Your task to perform on an android device: Go to calendar. Show me events next week Image 0: 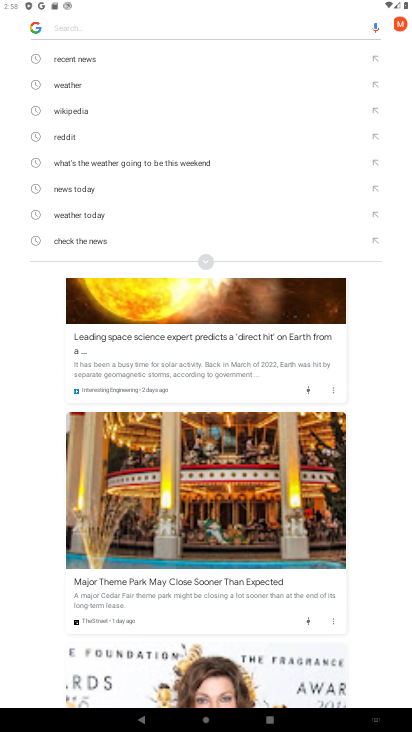
Step 0: press home button
Your task to perform on an android device: Go to calendar. Show me events next week Image 1: 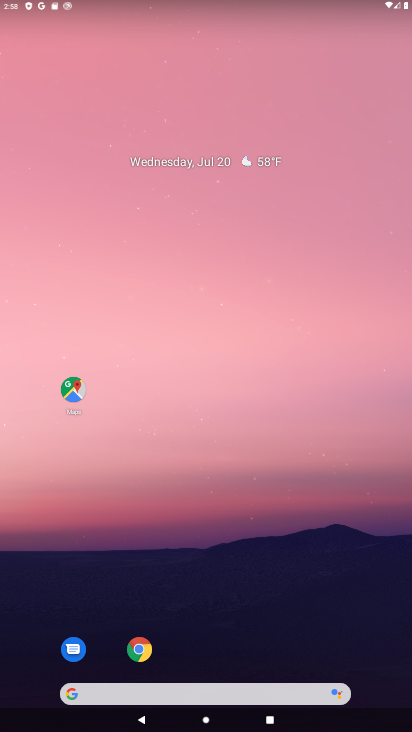
Step 1: drag from (234, 680) to (234, 230)
Your task to perform on an android device: Go to calendar. Show me events next week Image 2: 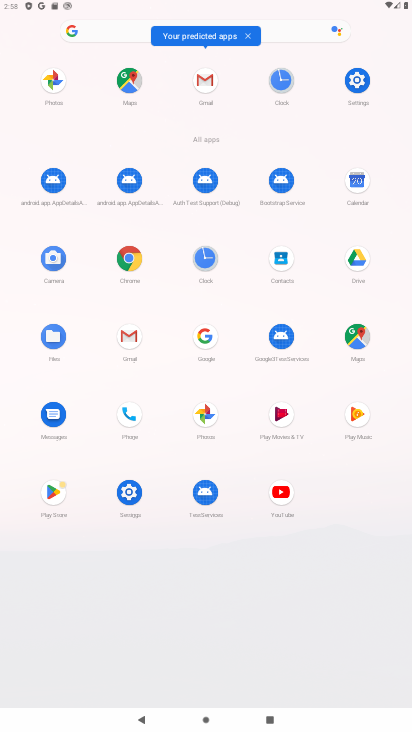
Step 2: click (356, 180)
Your task to perform on an android device: Go to calendar. Show me events next week Image 3: 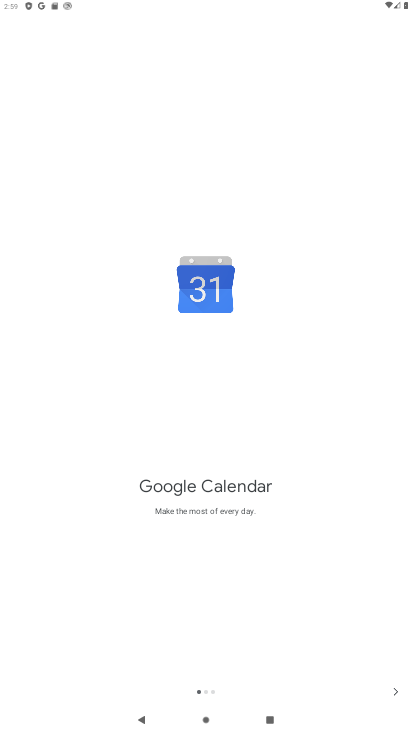
Step 3: click (398, 693)
Your task to perform on an android device: Go to calendar. Show me events next week Image 4: 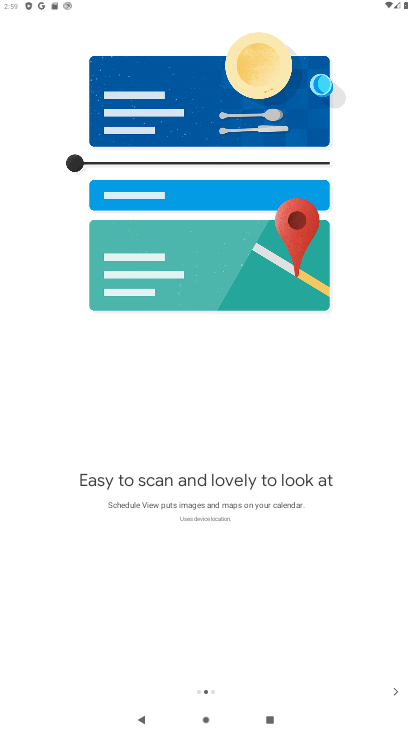
Step 4: click (396, 691)
Your task to perform on an android device: Go to calendar. Show me events next week Image 5: 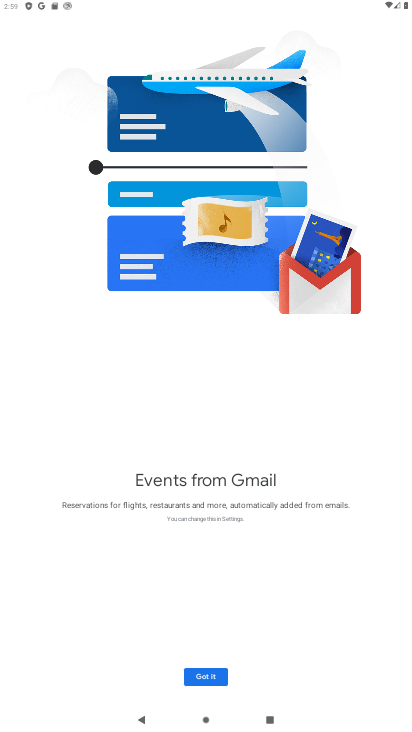
Step 5: click (210, 679)
Your task to perform on an android device: Go to calendar. Show me events next week Image 6: 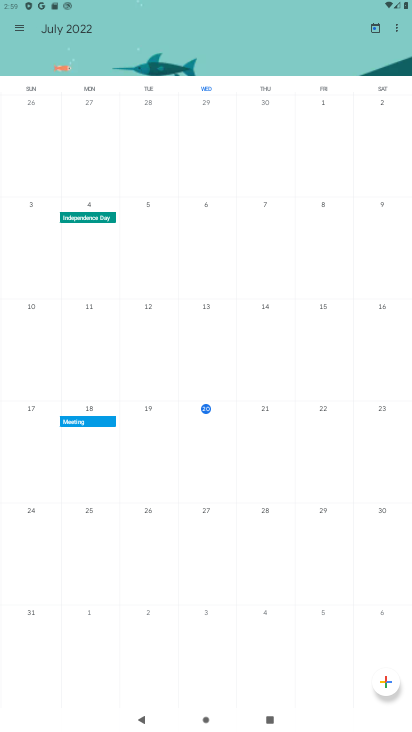
Step 6: click (19, 27)
Your task to perform on an android device: Go to calendar. Show me events next week Image 7: 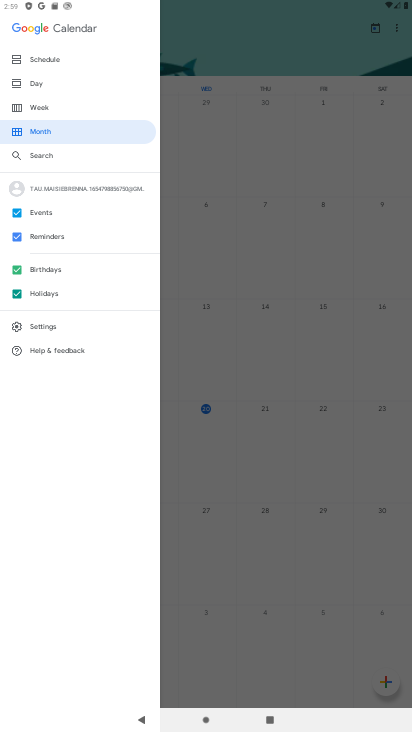
Step 7: click (41, 293)
Your task to perform on an android device: Go to calendar. Show me events next week Image 8: 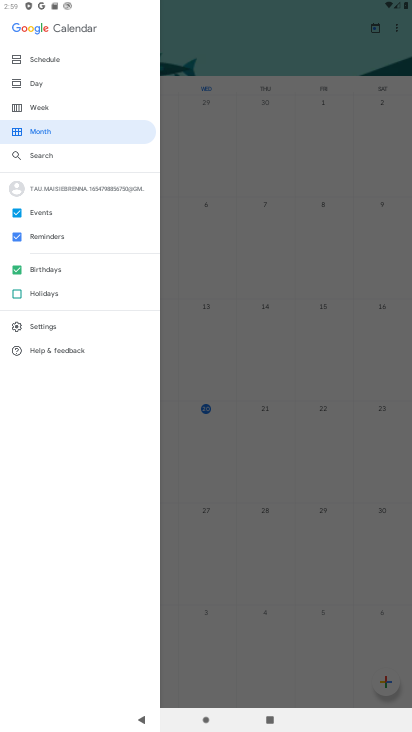
Step 8: click (40, 265)
Your task to perform on an android device: Go to calendar. Show me events next week Image 9: 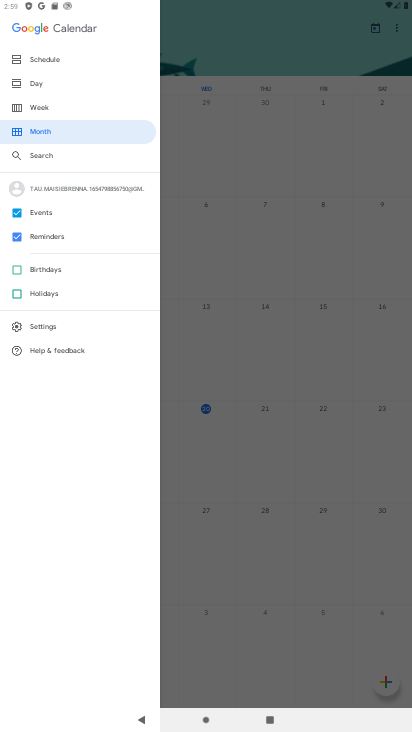
Step 9: click (44, 234)
Your task to perform on an android device: Go to calendar. Show me events next week Image 10: 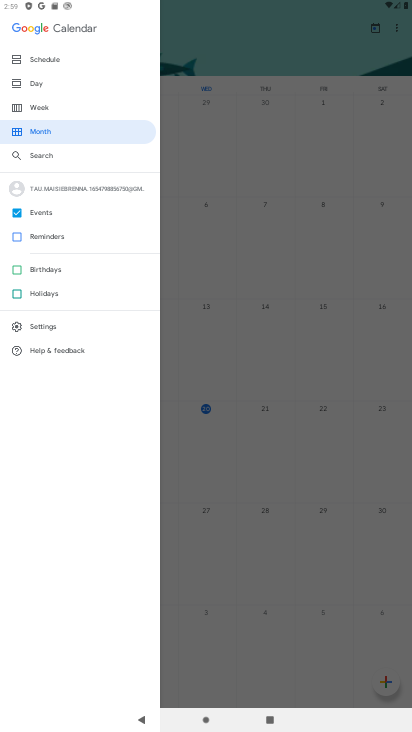
Step 10: click (51, 106)
Your task to perform on an android device: Go to calendar. Show me events next week Image 11: 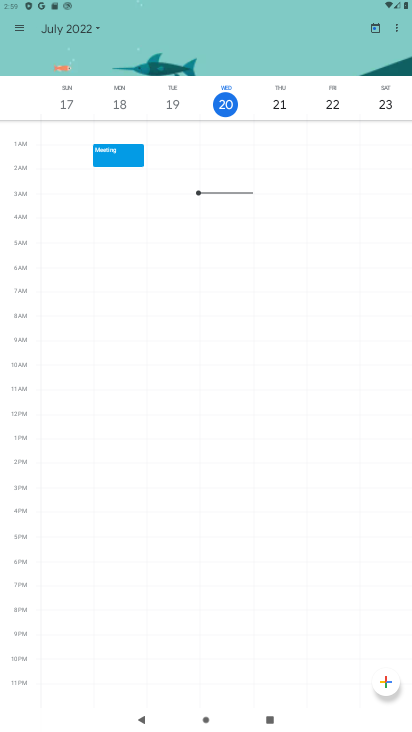
Step 11: task complete